Your task to perform on an android device: add a contact in the contacts app Image 0: 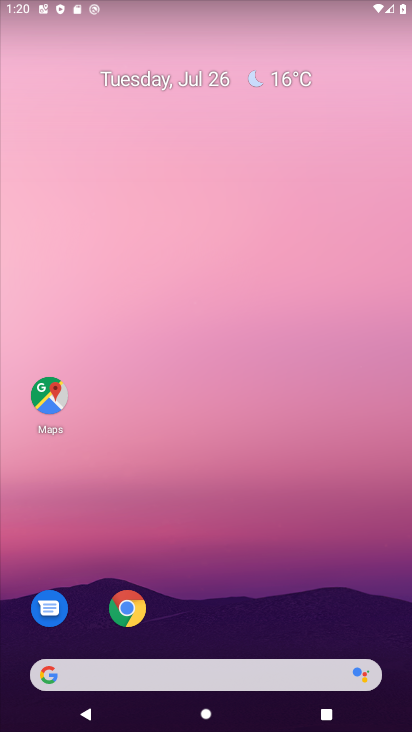
Step 0: drag from (370, 656) to (232, 8)
Your task to perform on an android device: add a contact in the contacts app Image 1: 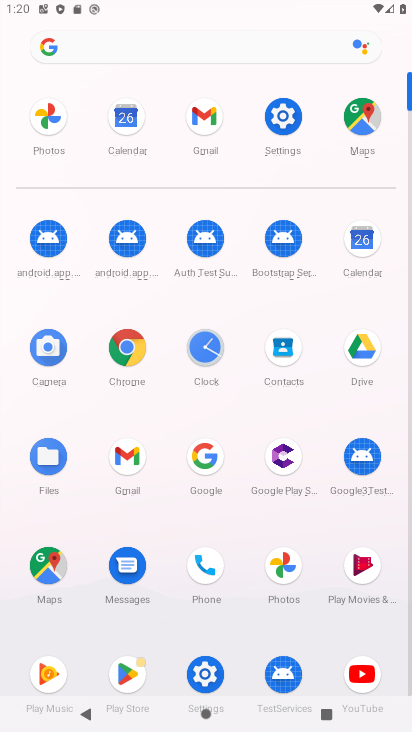
Step 1: click (273, 354)
Your task to perform on an android device: add a contact in the contacts app Image 2: 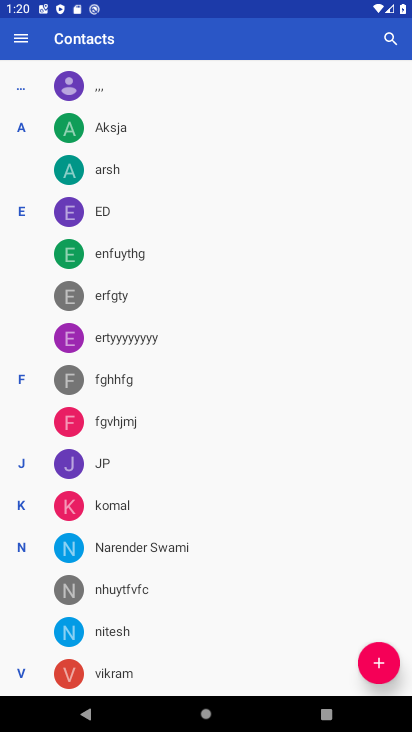
Step 2: click (271, 345)
Your task to perform on an android device: add a contact in the contacts app Image 3: 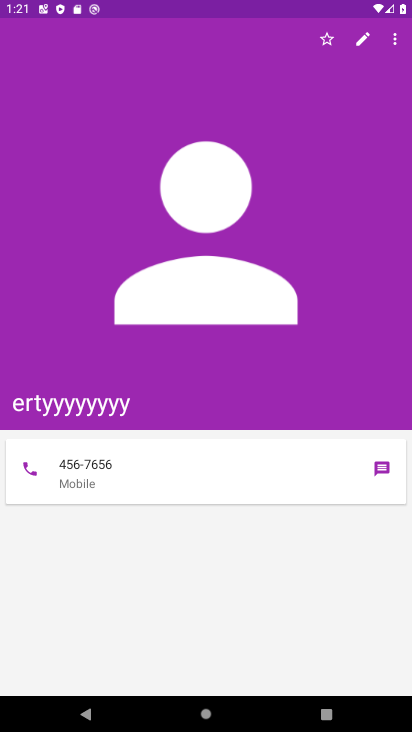
Step 3: press back button
Your task to perform on an android device: add a contact in the contacts app Image 4: 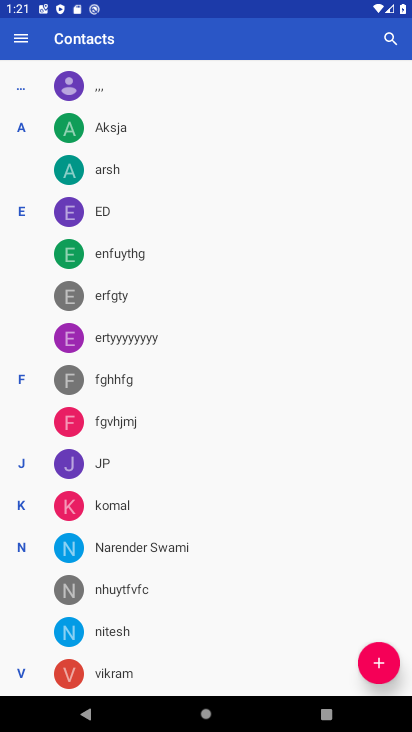
Step 4: click (381, 646)
Your task to perform on an android device: add a contact in the contacts app Image 5: 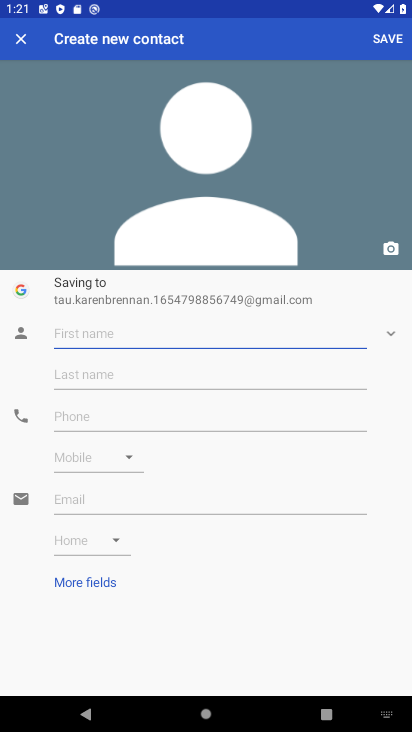
Step 5: click (202, 330)
Your task to perform on an android device: add a contact in the contacts app Image 6: 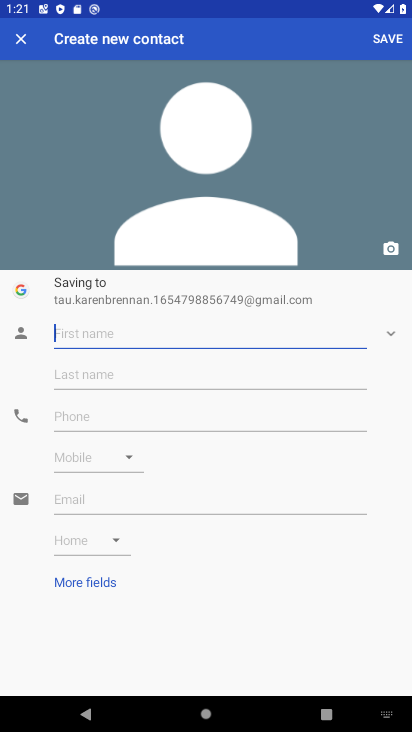
Step 6: type "sffsvd"
Your task to perform on an android device: add a contact in the contacts app Image 7: 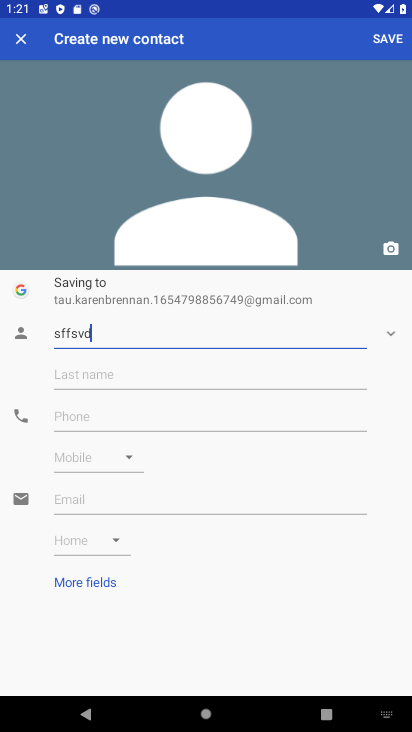
Step 7: click (145, 388)
Your task to perform on an android device: add a contact in the contacts app Image 8: 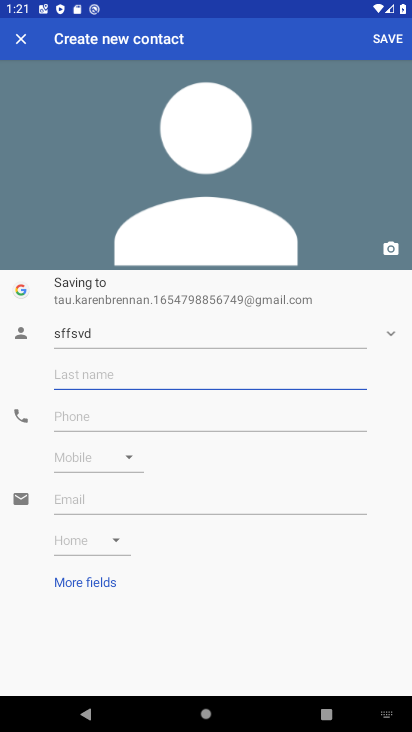
Step 8: type "c"
Your task to perform on an android device: add a contact in the contacts app Image 9: 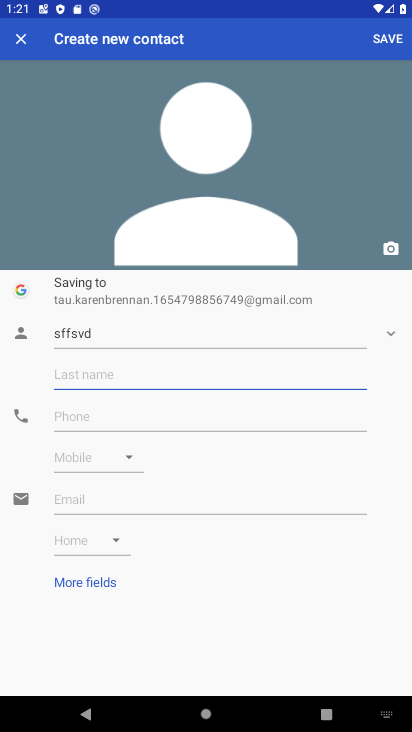
Step 9: click (366, 51)
Your task to perform on an android device: add a contact in the contacts app Image 10: 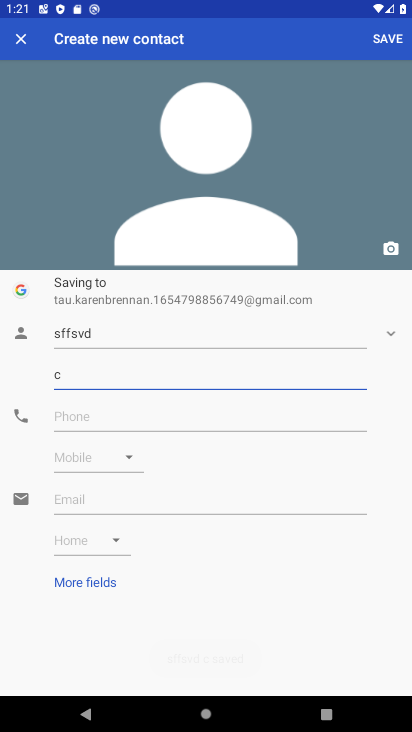
Step 10: task complete